Your task to perform on an android device: Open my contact list Image 0: 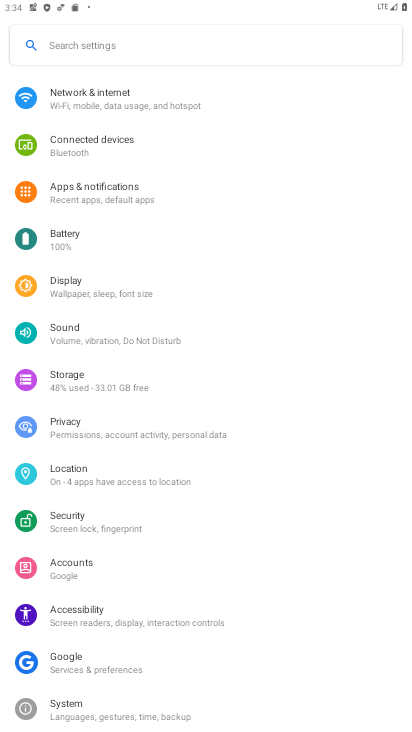
Step 0: drag from (211, 690) to (210, 503)
Your task to perform on an android device: Open my contact list Image 1: 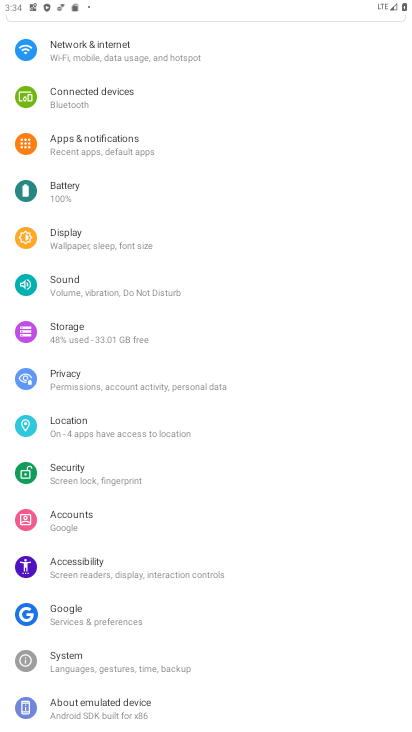
Step 1: press home button
Your task to perform on an android device: Open my contact list Image 2: 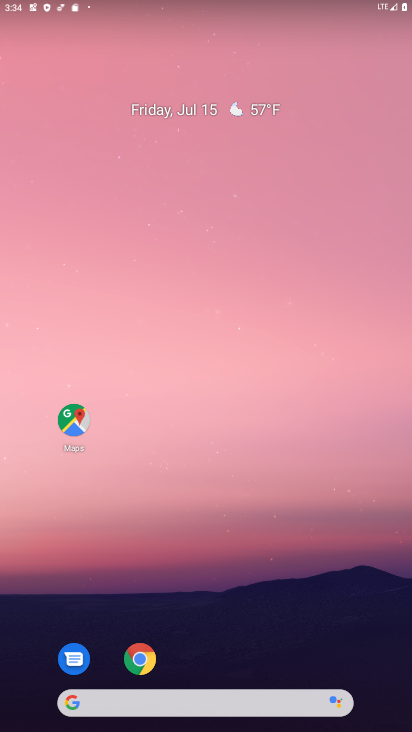
Step 2: drag from (141, 689) to (354, 1)
Your task to perform on an android device: Open my contact list Image 3: 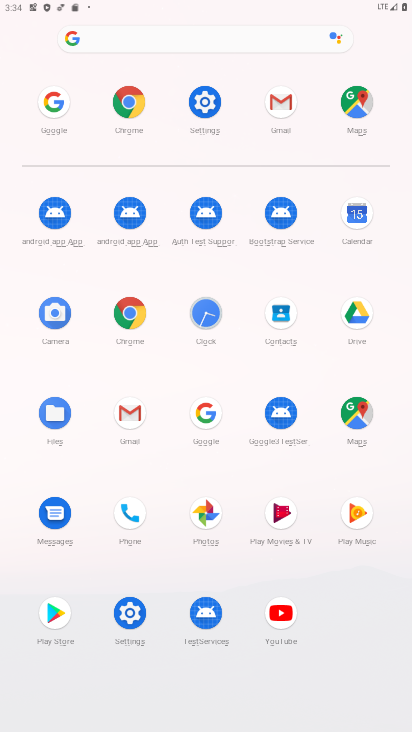
Step 3: click (292, 318)
Your task to perform on an android device: Open my contact list Image 4: 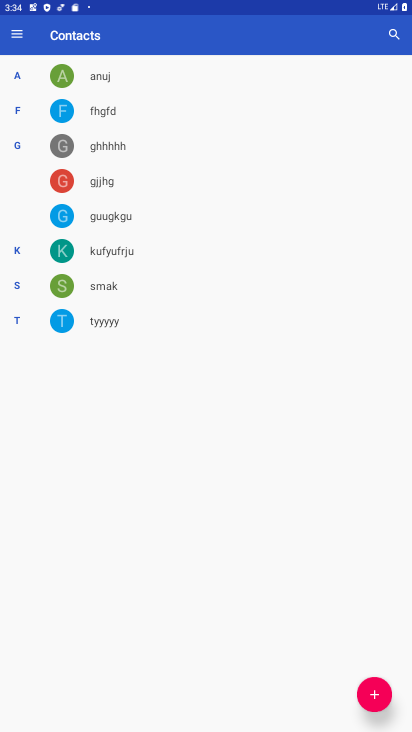
Step 4: task complete